Your task to perform on an android device: uninstall "Google Play Music" Image 0: 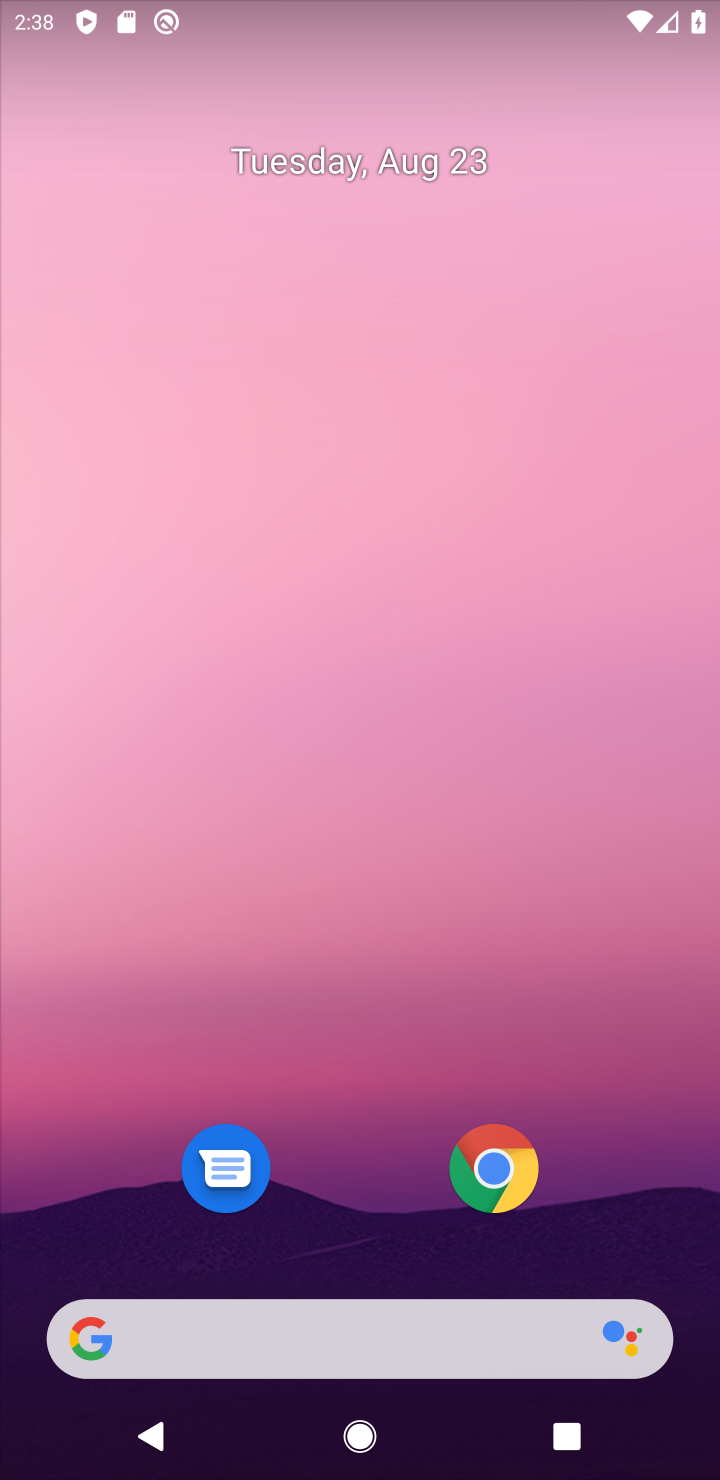
Step 0: drag from (392, 1002) to (502, 267)
Your task to perform on an android device: uninstall "Google Play Music" Image 1: 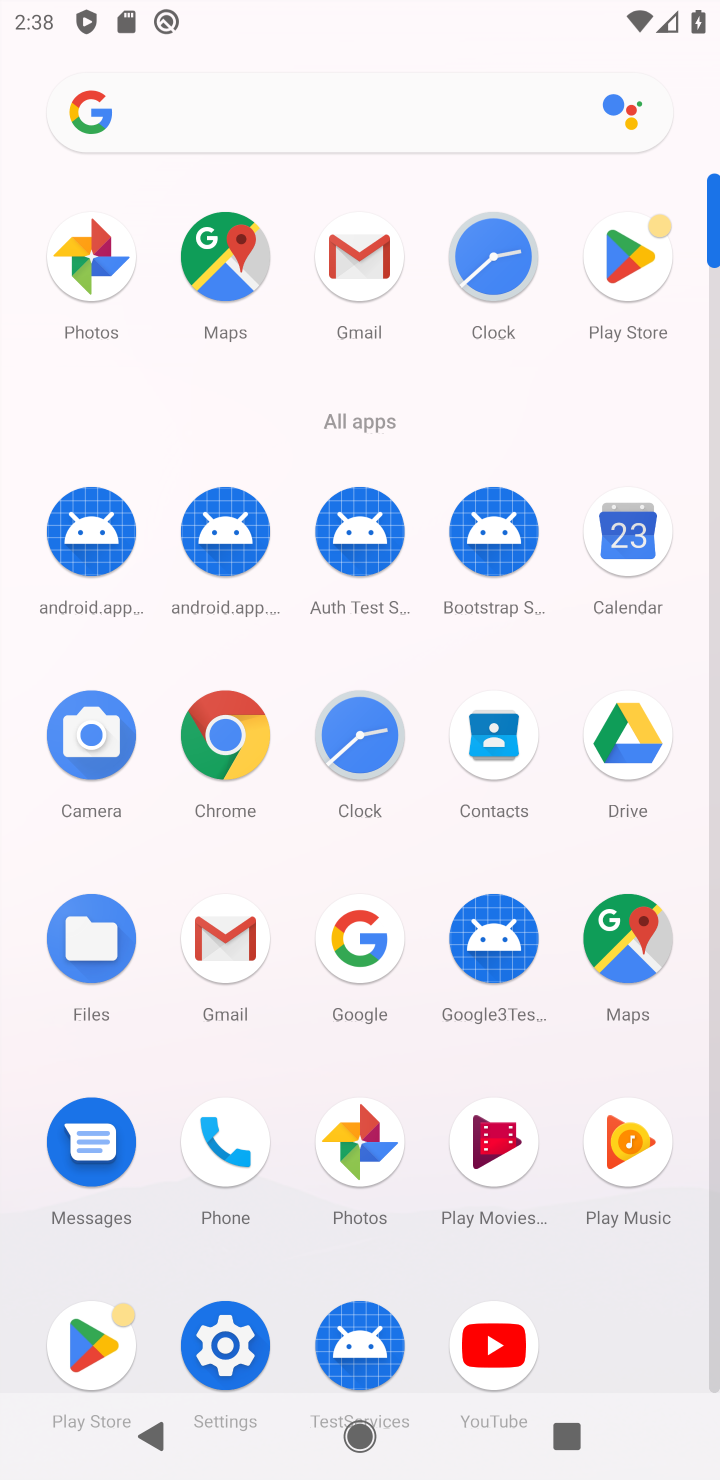
Step 1: click (635, 1156)
Your task to perform on an android device: uninstall "Google Play Music" Image 2: 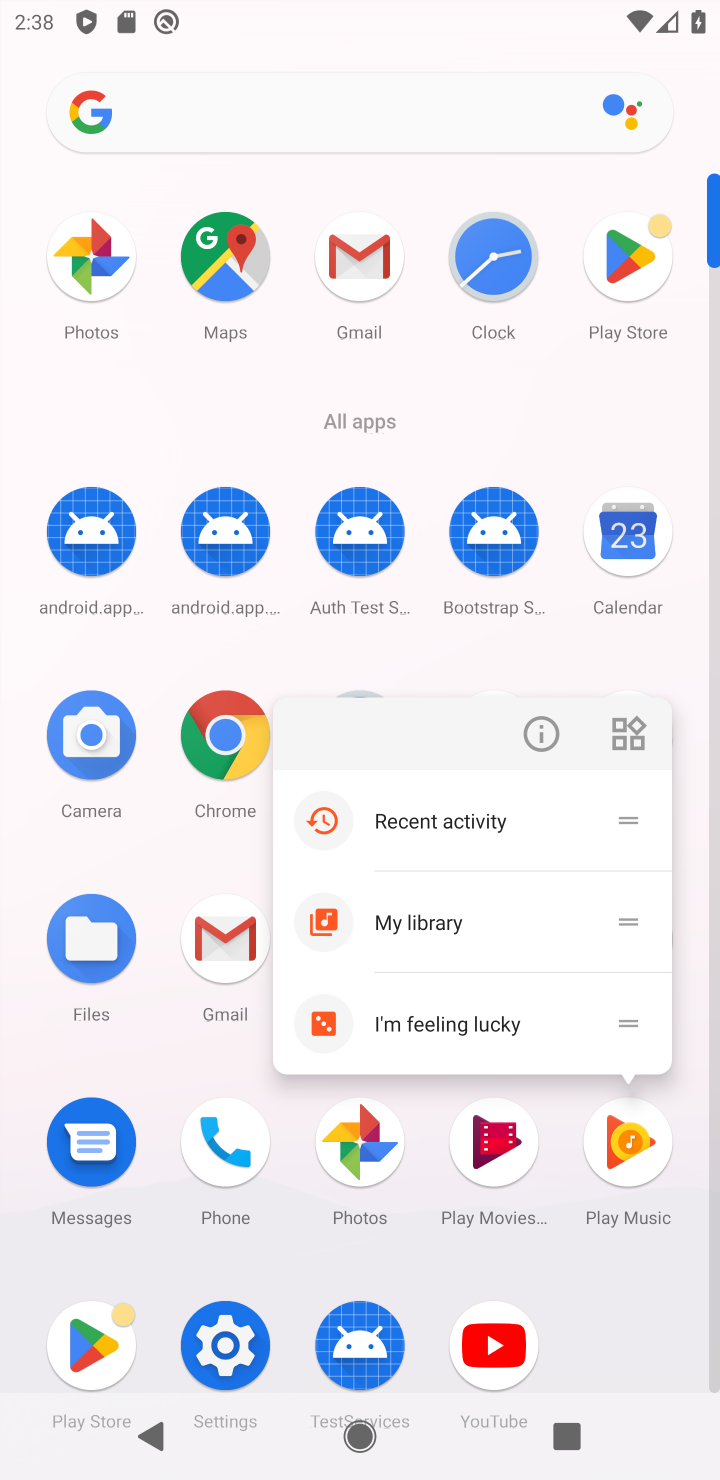
Step 2: task complete